Your task to perform on an android device: refresh tabs in the chrome app Image 0: 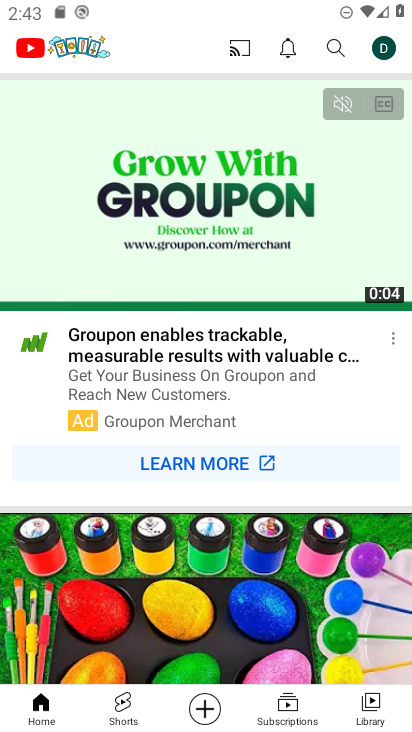
Step 0: press home button
Your task to perform on an android device: refresh tabs in the chrome app Image 1: 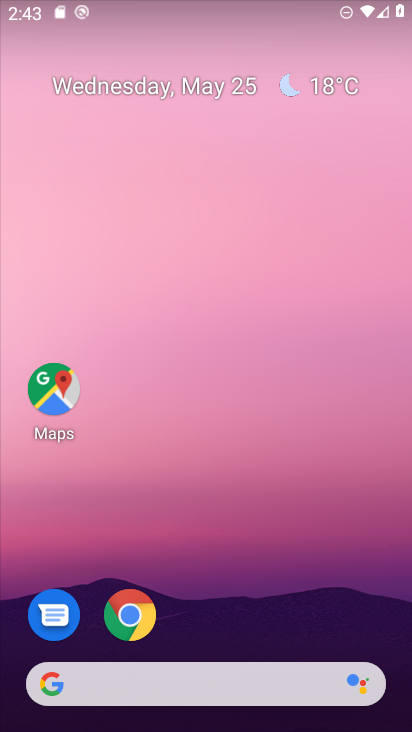
Step 1: click (134, 608)
Your task to perform on an android device: refresh tabs in the chrome app Image 2: 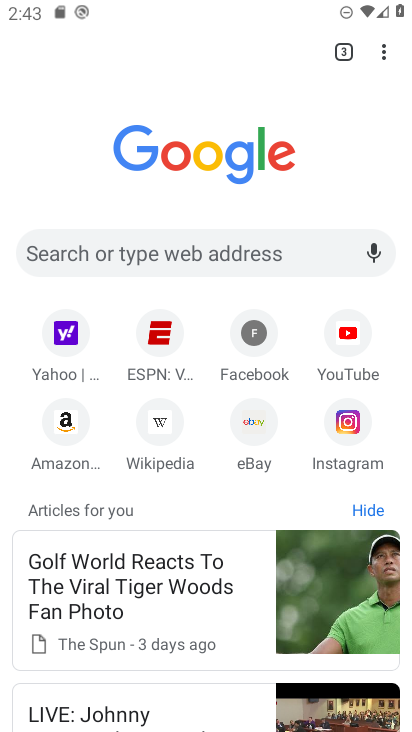
Step 2: click (381, 55)
Your task to perform on an android device: refresh tabs in the chrome app Image 3: 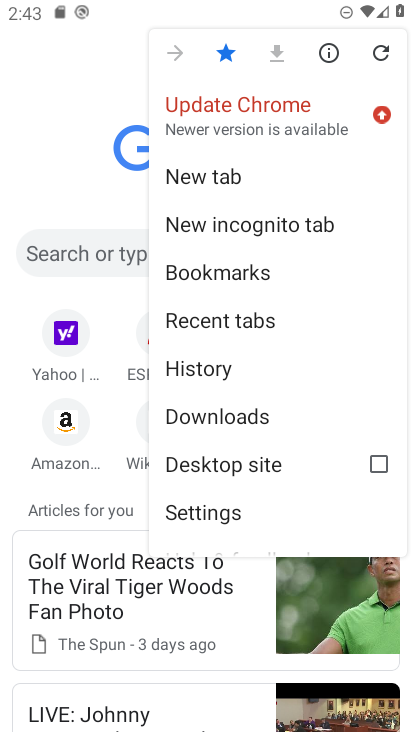
Step 3: click (380, 52)
Your task to perform on an android device: refresh tabs in the chrome app Image 4: 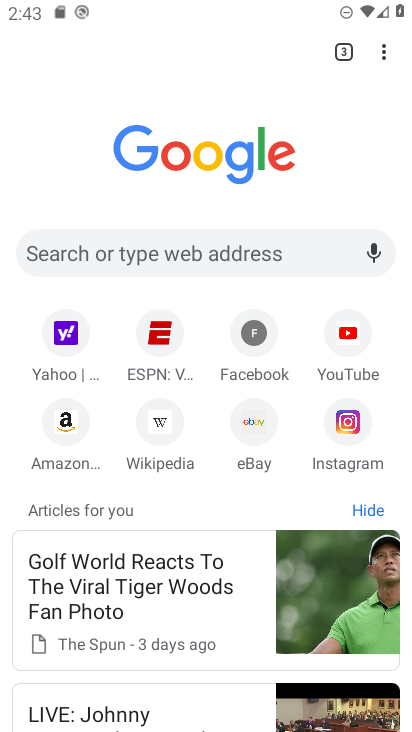
Step 4: task complete